Your task to perform on an android device: Open calendar and show me the second week of next month Image 0: 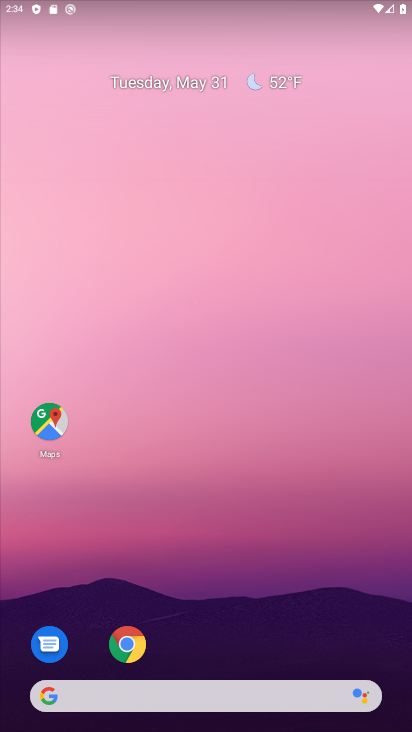
Step 0: drag from (244, 647) to (238, 144)
Your task to perform on an android device: Open calendar and show me the second week of next month Image 1: 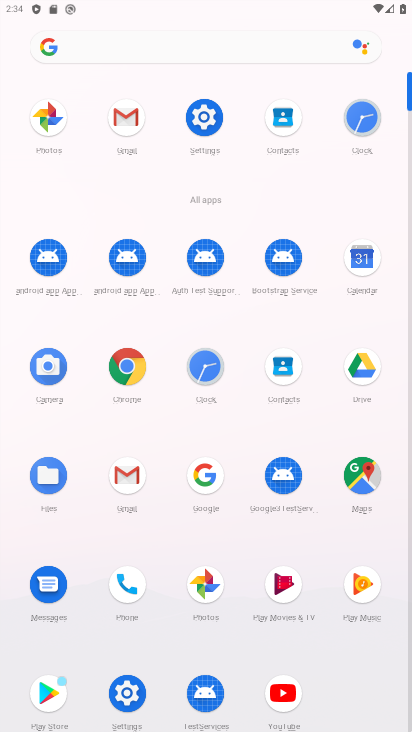
Step 1: click (367, 261)
Your task to perform on an android device: Open calendar and show me the second week of next month Image 2: 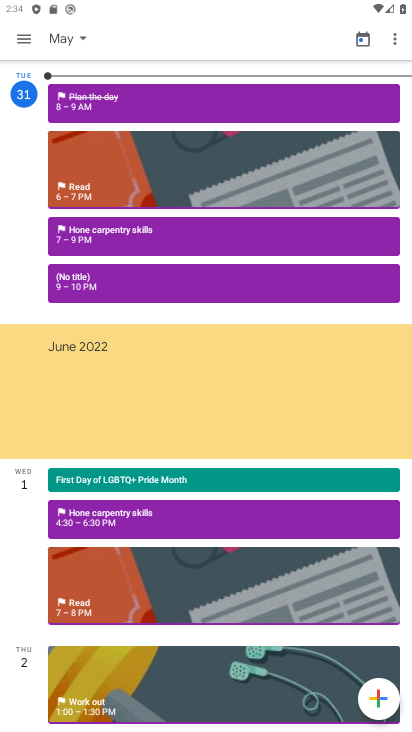
Step 2: task complete